Your task to perform on an android device: show emergency info Image 0: 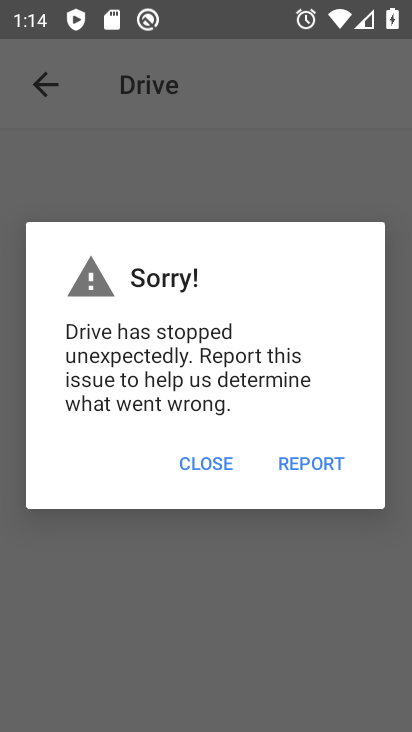
Step 0: press home button
Your task to perform on an android device: show emergency info Image 1: 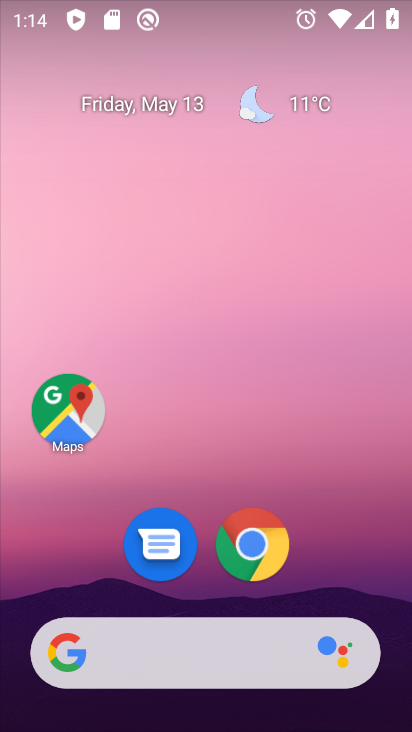
Step 1: drag from (197, 567) to (239, 171)
Your task to perform on an android device: show emergency info Image 2: 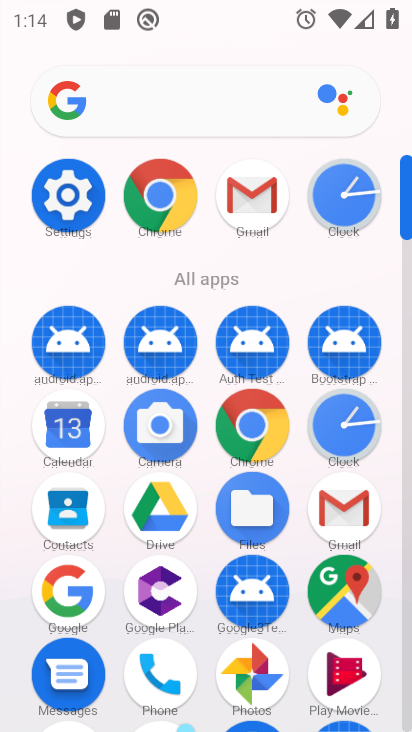
Step 2: click (64, 191)
Your task to perform on an android device: show emergency info Image 3: 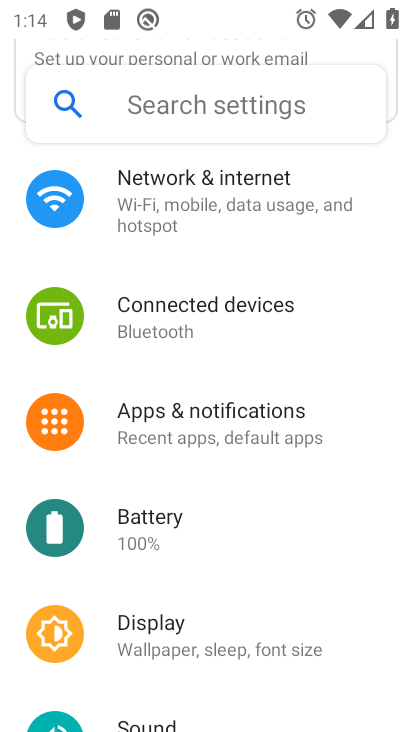
Step 3: drag from (196, 557) to (295, 112)
Your task to perform on an android device: show emergency info Image 4: 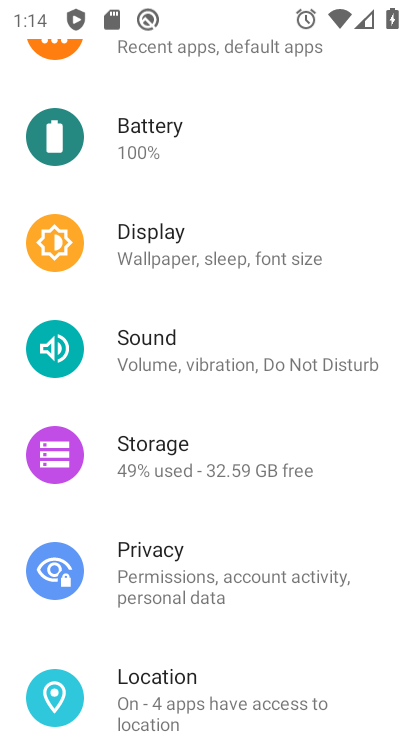
Step 4: drag from (169, 651) to (198, 265)
Your task to perform on an android device: show emergency info Image 5: 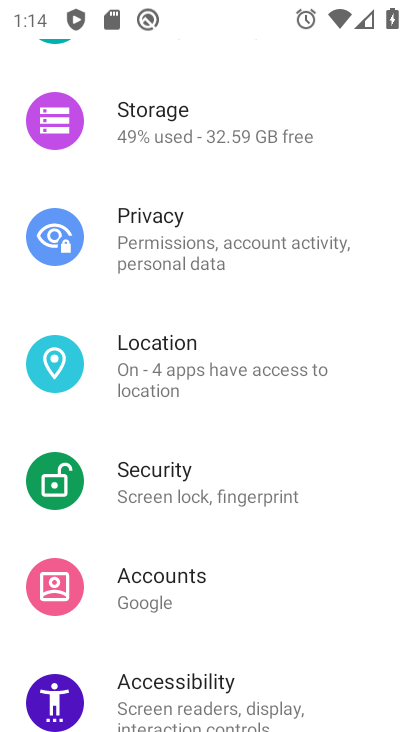
Step 5: drag from (228, 651) to (262, 247)
Your task to perform on an android device: show emergency info Image 6: 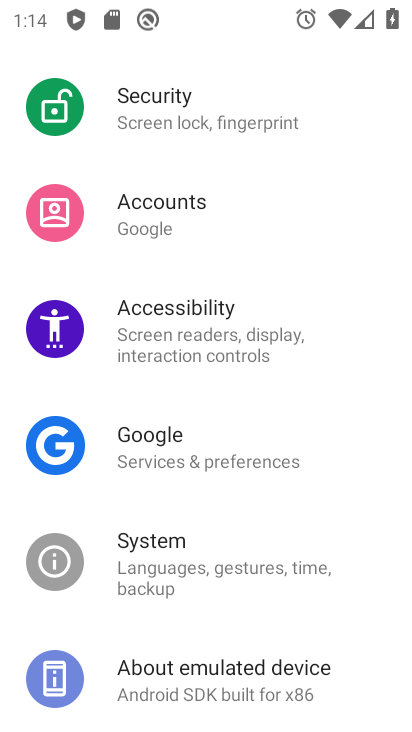
Step 6: click (156, 670)
Your task to perform on an android device: show emergency info Image 7: 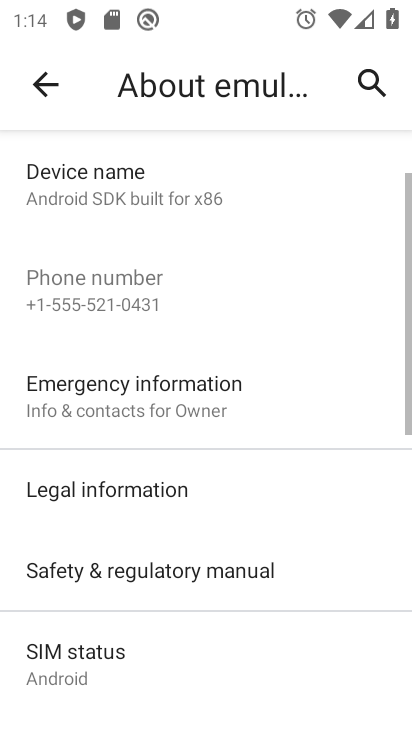
Step 7: drag from (138, 658) to (162, 472)
Your task to perform on an android device: show emergency info Image 8: 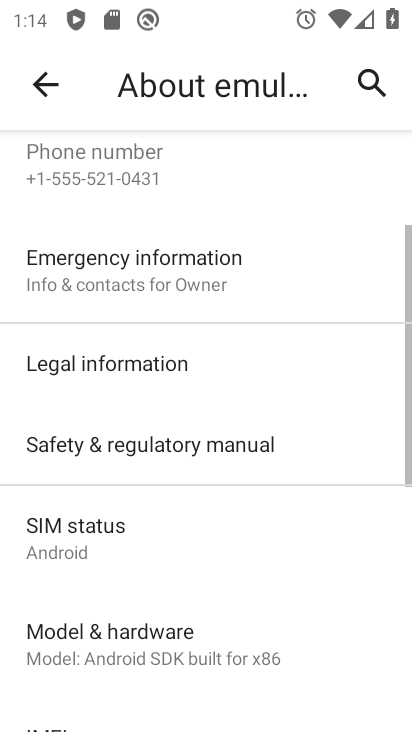
Step 8: click (109, 270)
Your task to perform on an android device: show emergency info Image 9: 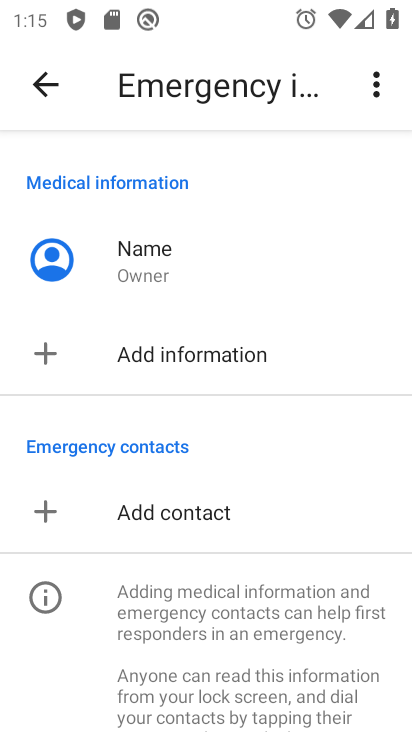
Step 9: task complete